Your task to perform on an android device: turn off data saver in the chrome app Image 0: 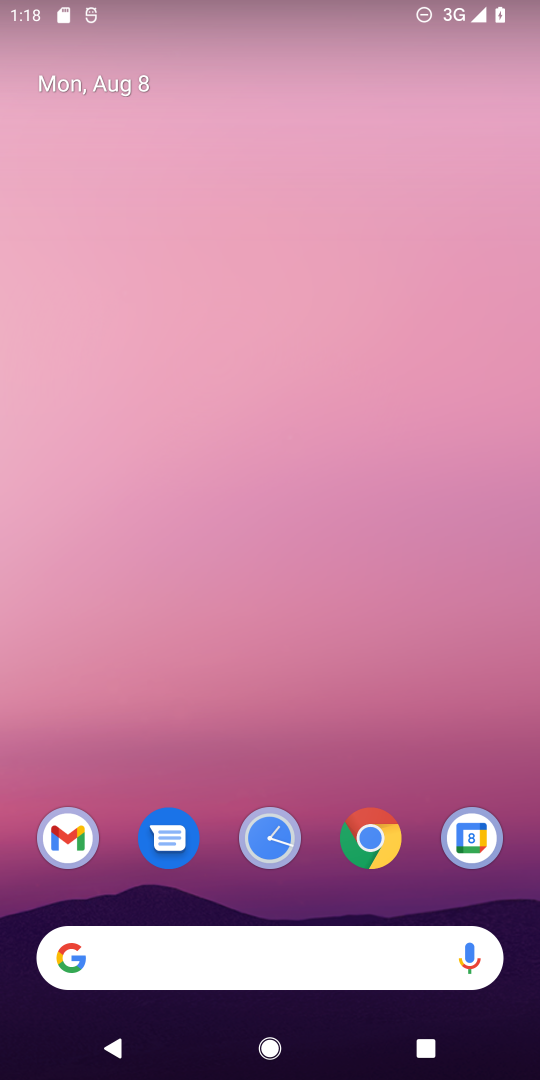
Step 0: press home button
Your task to perform on an android device: turn off data saver in the chrome app Image 1: 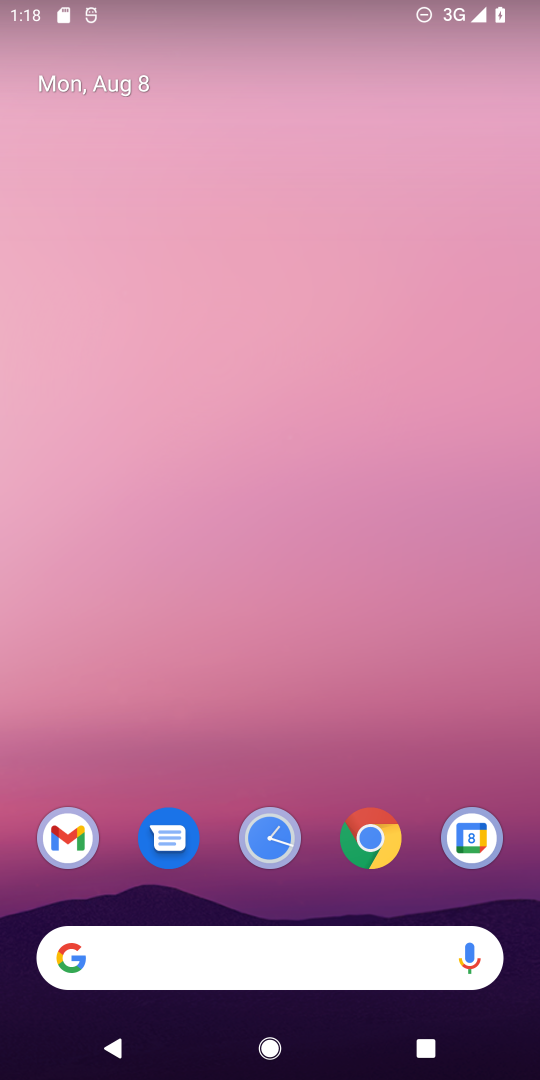
Step 1: click (360, 839)
Your task to perform on an android device: turn off data saver in the chrome app Image 2: 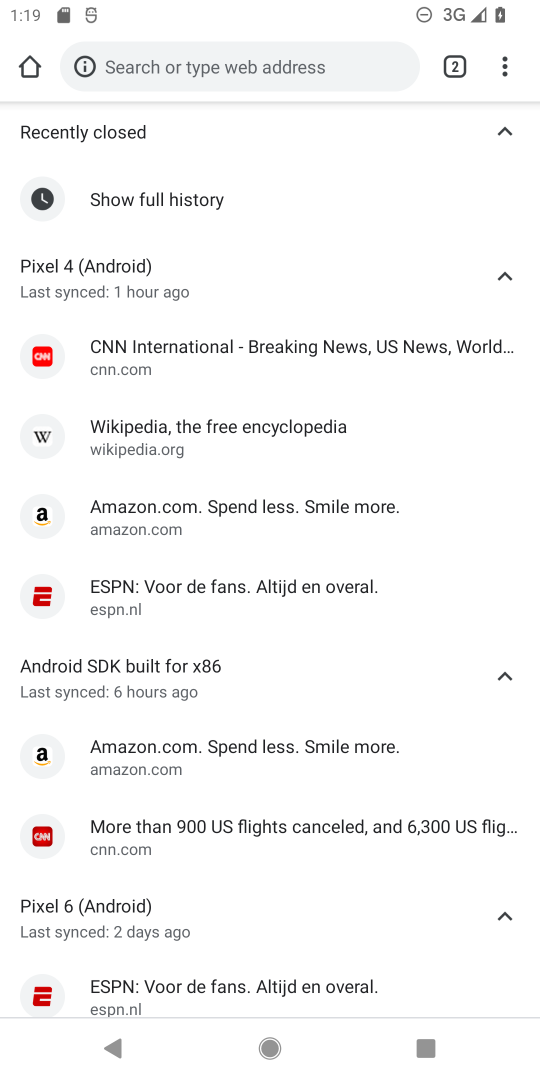
Step 2: drag from (508, 62) to (305, 666)
Your task to perform on an android device: turn off data saver in the chrome app Image 3: 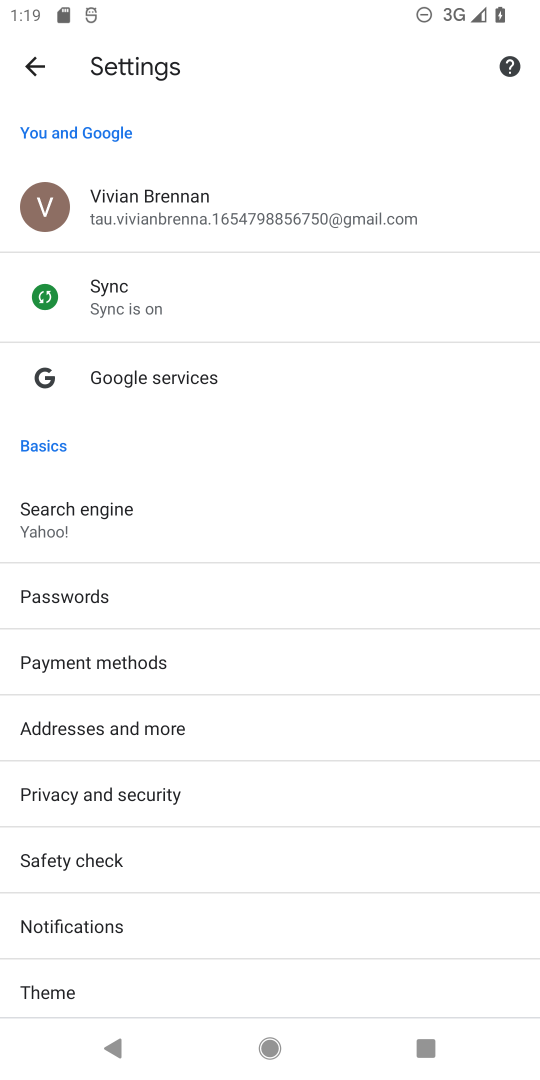
Step 3: drag from (294, 967) to (374, 269)
Your task to perform on an android device: turn off data saver in the chrome app Image 4: 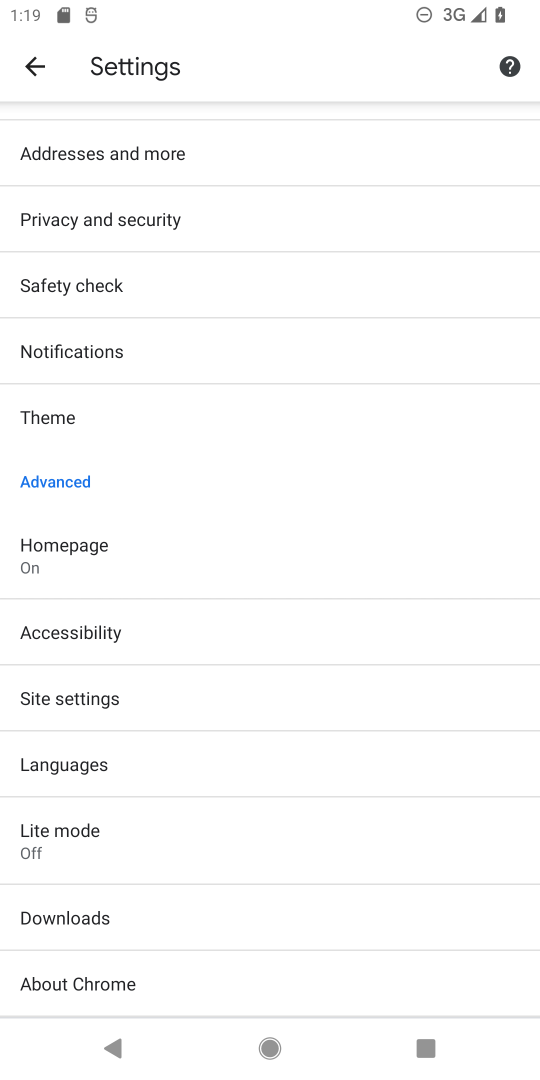
Step 4: click (73, 838)
Your task to perform on an android device: turn off data saver in the chrome app Image 5: 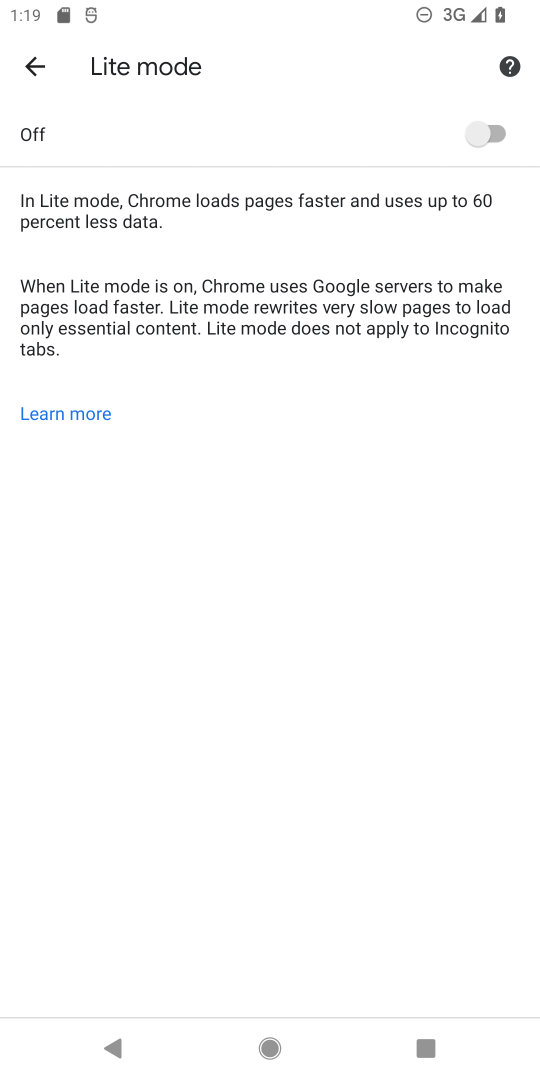
Step 5: task complete